Your task to perform on an android device: Open privacy settings Image 0: 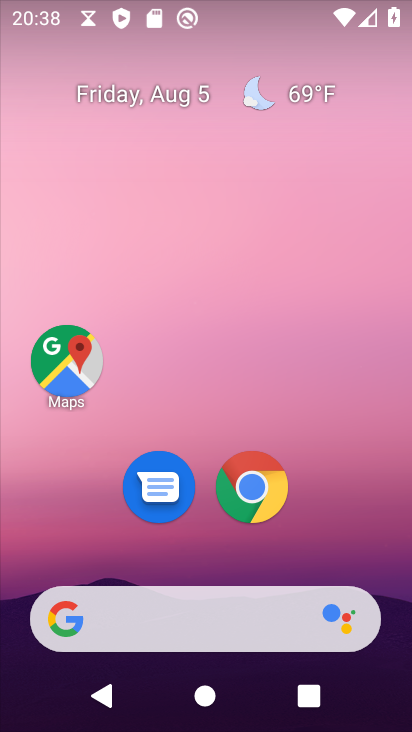
Step 0: press home button
Your task to perform on an android device: Open privacy settings Image 1: 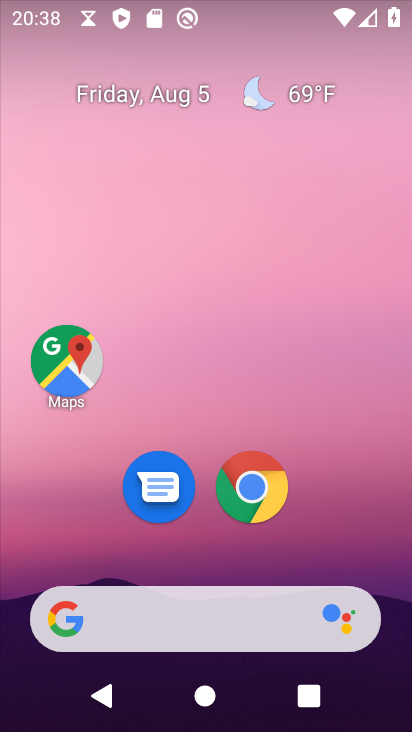
Step 1: drag from (210, 626) to (305, 56)
Your task to perform on an android device: Open privacy settings Image 2: 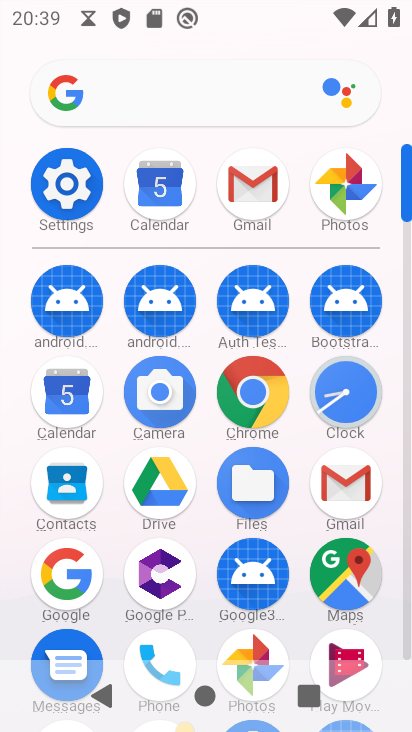
Step 2: click (66, 180)
Your task to perform on an android device: Open privacy settings Image 3: 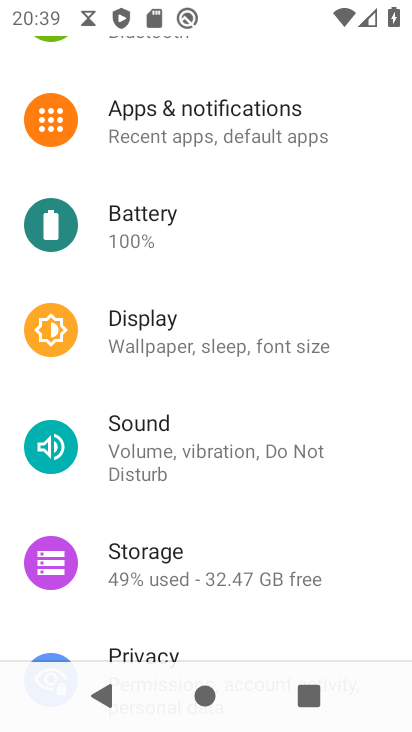
Step 3: drag from (246, 604) to (302, 133)
Your task to perform on an android device: Open privacy settings Image 4: 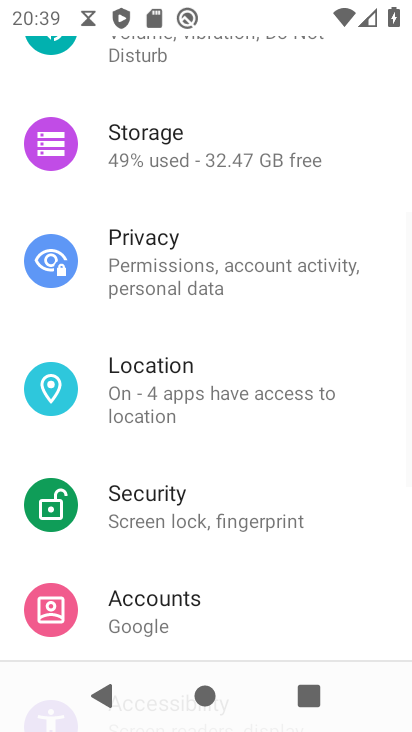
Step 4: click (109, 261)
Your task to perform on an android device: Open privacy settings Image 5: 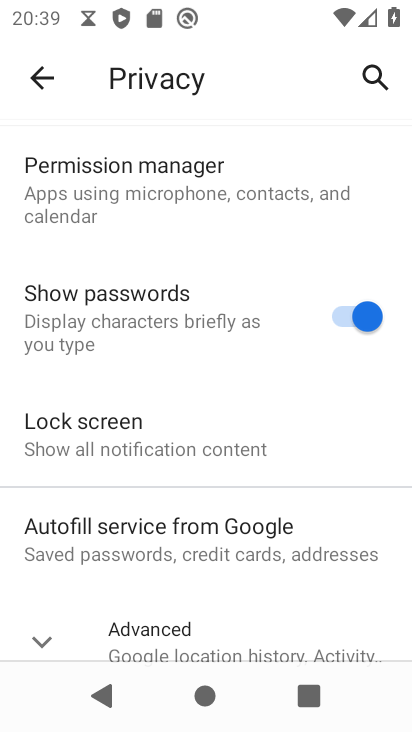
Step 5: task complete